Your task to perform on an android device: turn off location history Image 0: 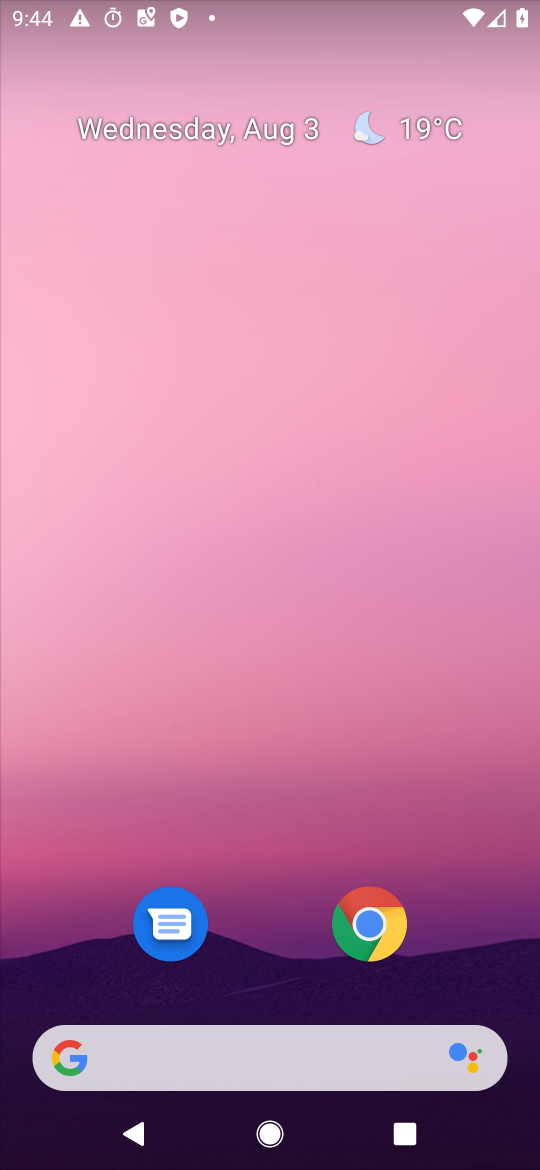
Step 0: press home button
Your task to perform on an android device: turn off location history Image 1: 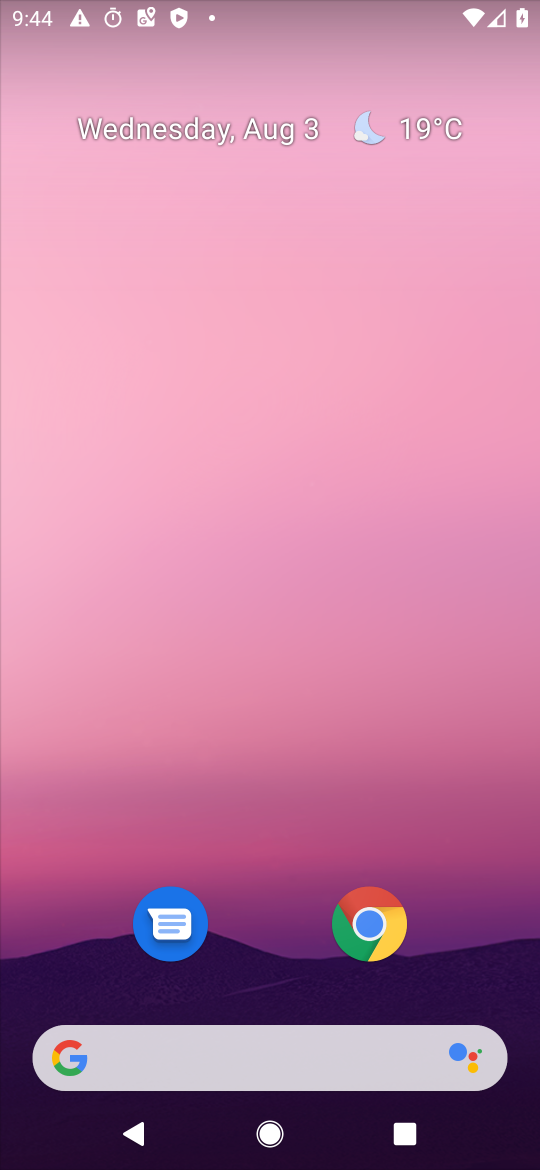
Step 1: drag from (277, 975) to (351, 87)
Your task to perform on an android device: turn off location history Image 2: 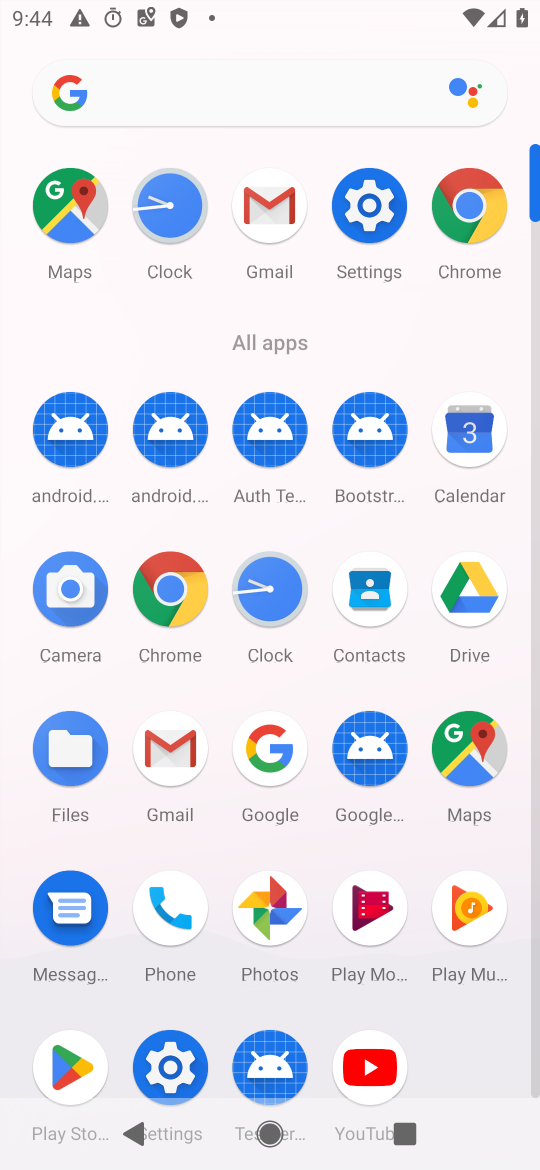
Step 2: click (358, 193)
Your task to perform on an android device: turn off location history Image 3: 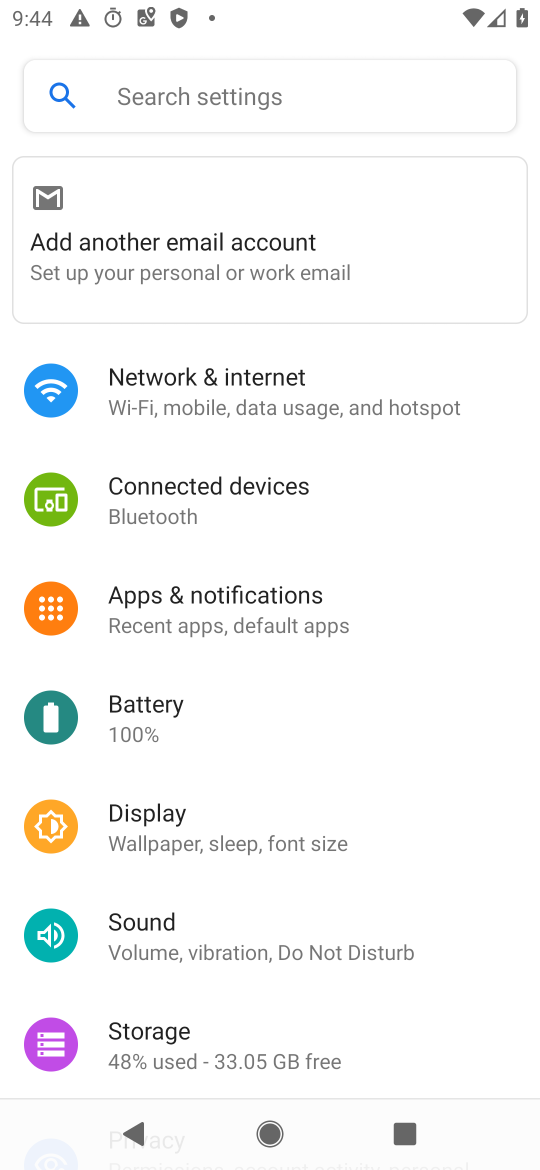
Step 3: drag from (313, 992) to (336, 257)
Your task to perform on an android device: turn off location history Image 4: 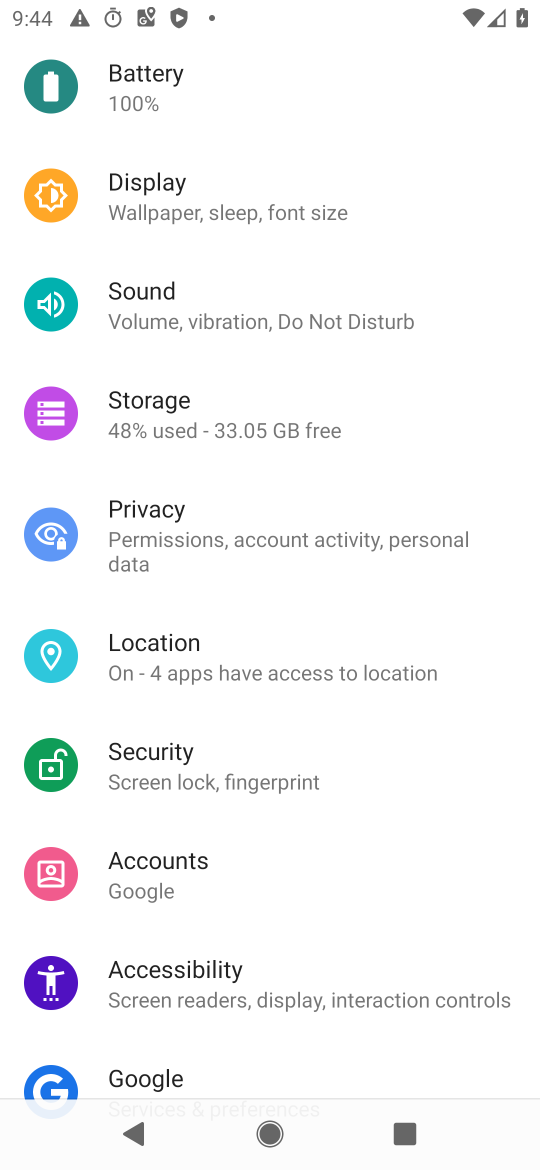
Step 4: click (235, 645)
Your task to perform on an android device: turn off location history Image 5: 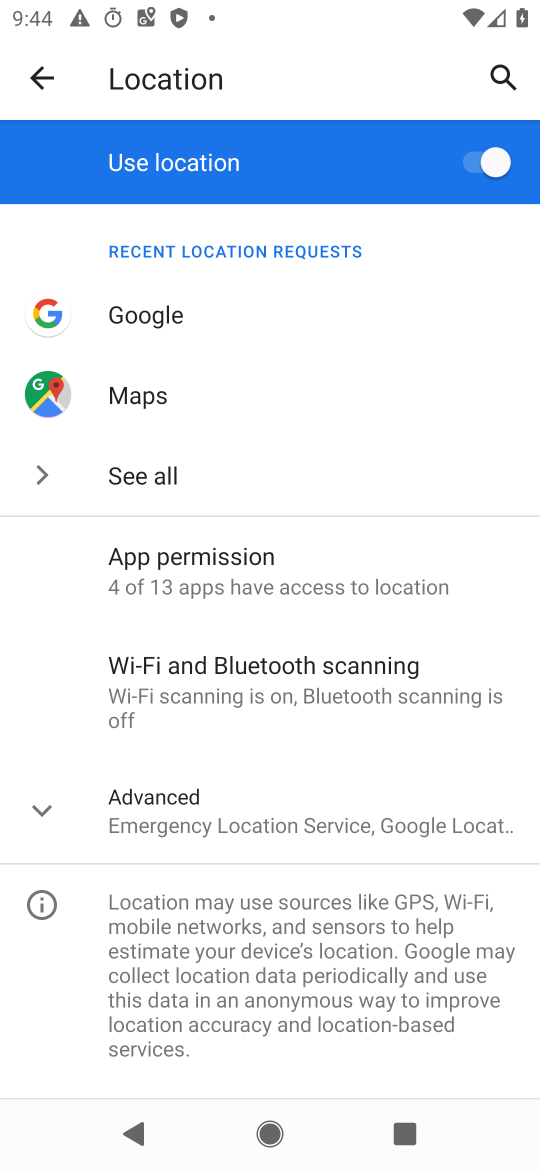
Step 5: click (50, 815)
Your task to perform on an android device: turn off location history Image 6: 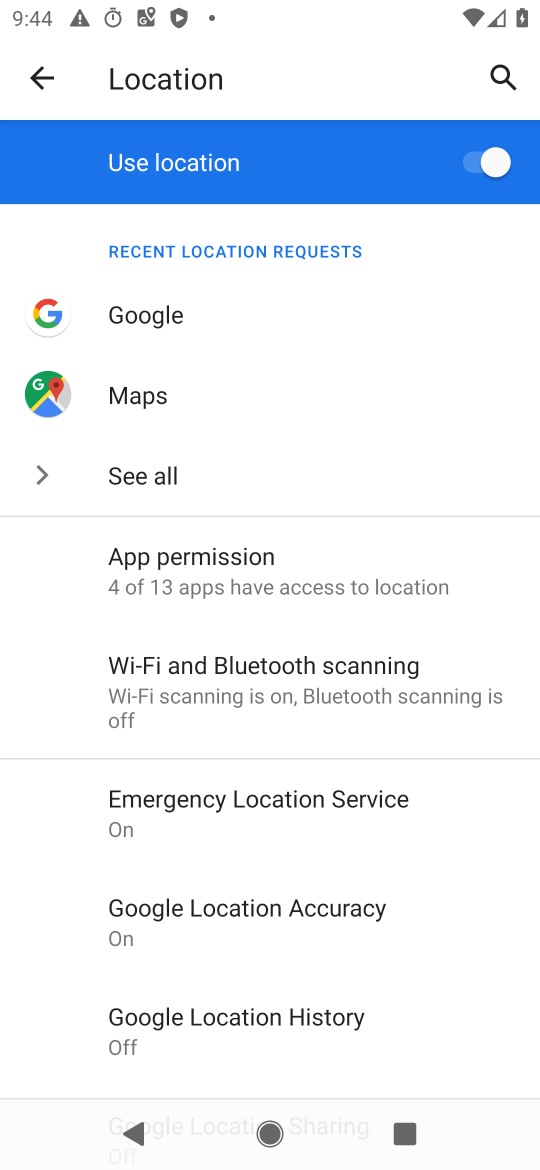
Step 6: click (250, 1036)
Your task to perform on an android device: turn off location history Image 7: 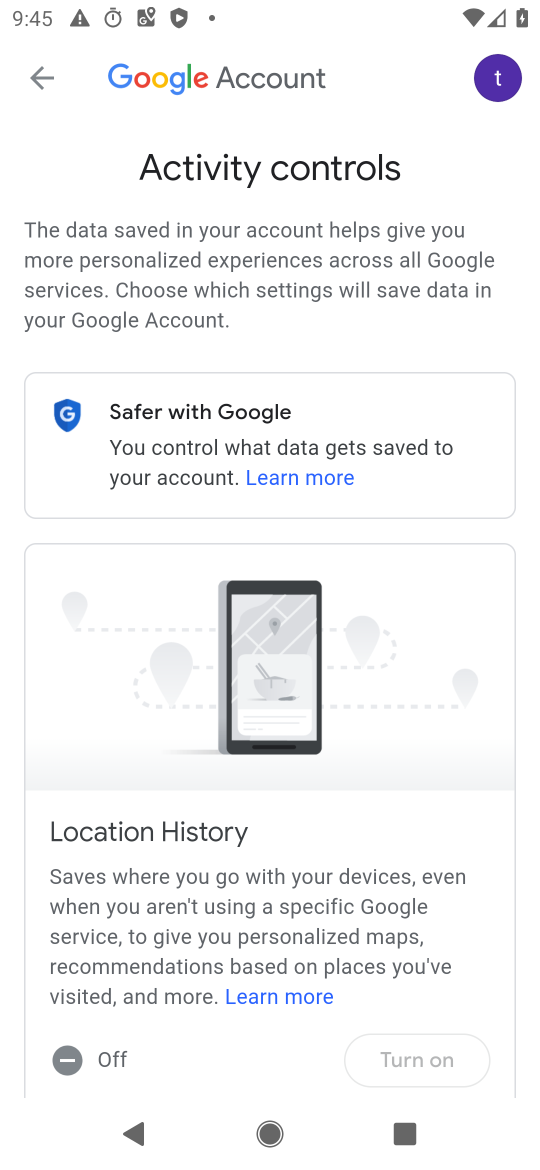
Step 7: task complete